Your task to perform on an android device: change keyboard looks Image 0: 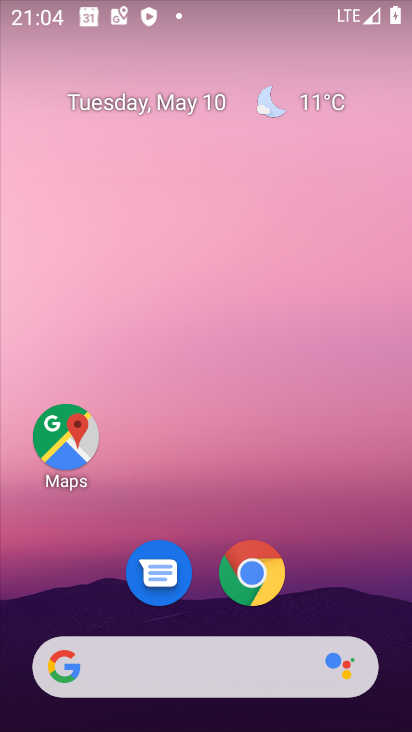
Step 0: drag from (387, 616) to (409, 471)
Your task to perform on an android device: change keyboard looks Image 1: 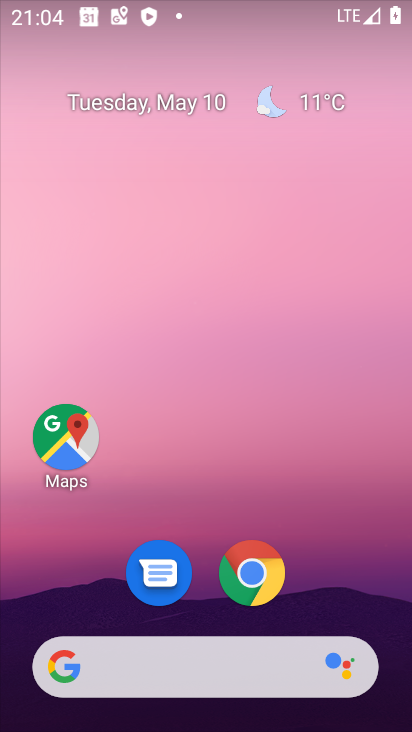
Step 1: drag from (330, 586) to (346, 9)
Your task to perform on an android device: change keyboard looks Image 2: 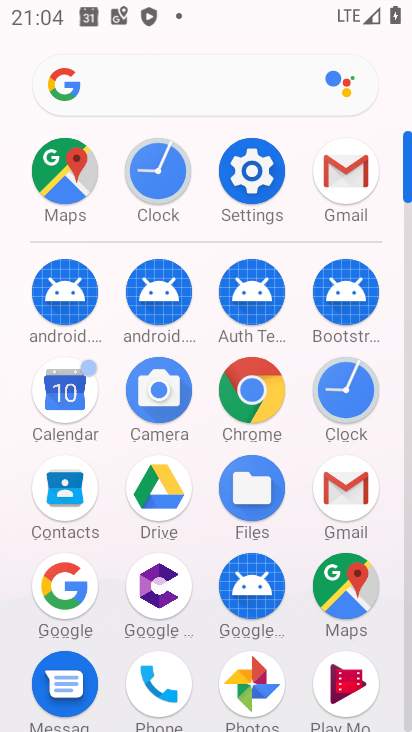
Step 2: click (257, 183)
Your task to perform on an android device: change keyboard looks Image 3: 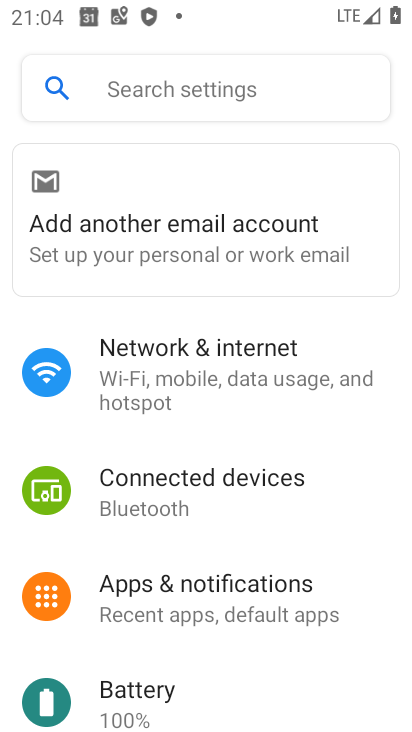
Step 3: drag from (373, 688) to (374, 93)
Your task to perform on an android device: change keyboard looks Image 4: 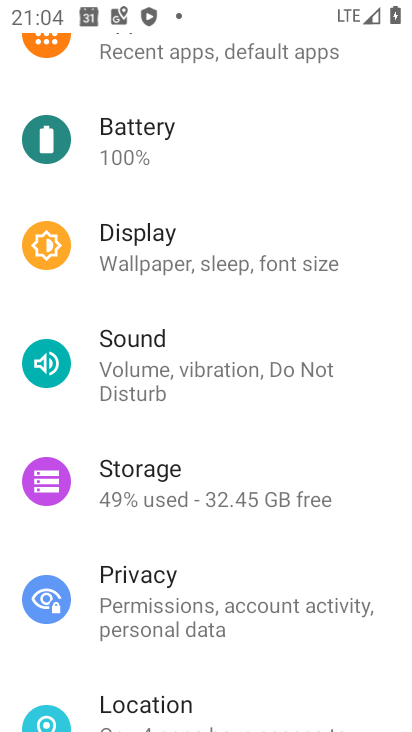
Step 4: drag from (339, 648) to (331, 171)
Your task to perform on an android device: change keyboard looks Image 5: 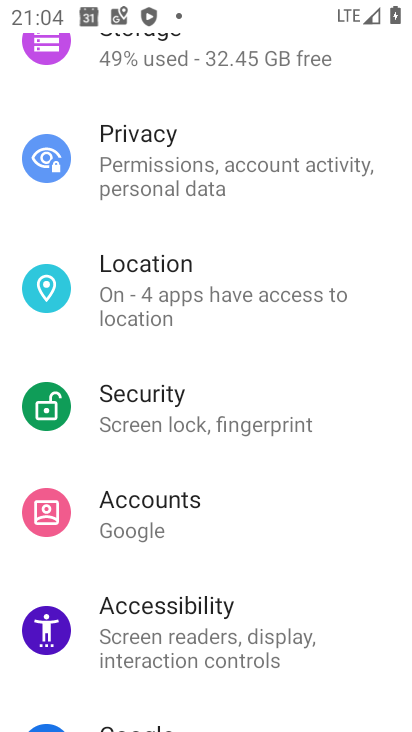
Step 5: drag from (350, 652) to (336, 220)
Your task to perform on an android device: change keyboard looks Image 6: 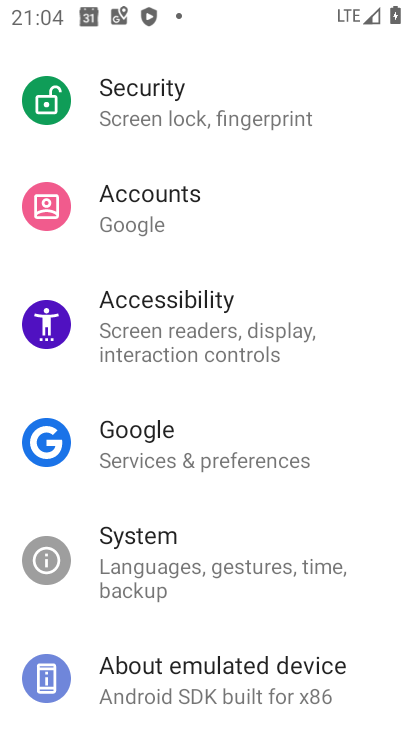
Step 6: click (157, 578)
Your task to perform on an android device: change keyboard looks Image 7: 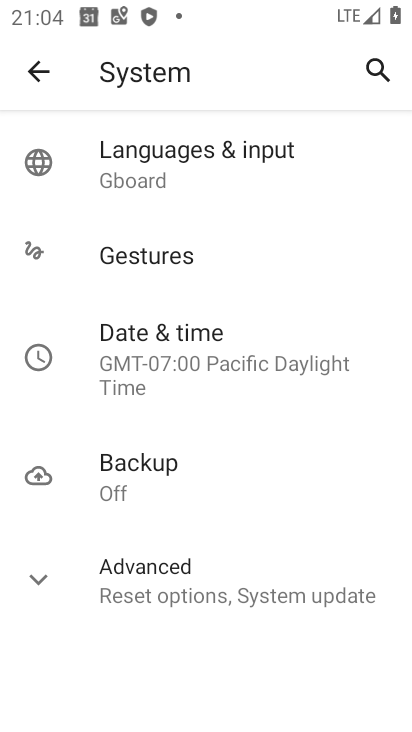
Step 7: click (174, 163)
Your task to perform on an android device: change keyboard looks Image 8: 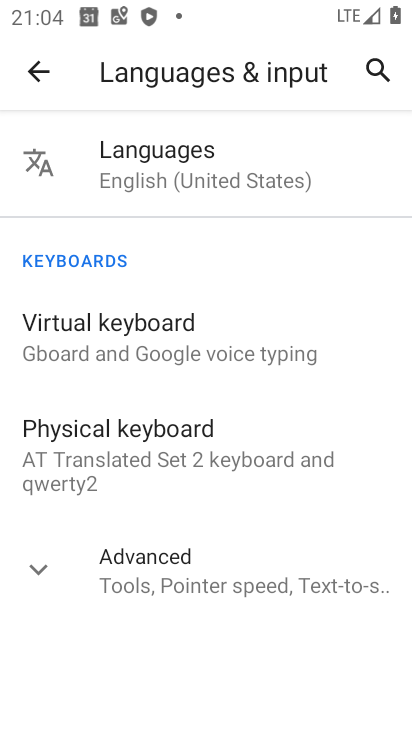
Step 8: click (204, 344)
Your task to perform on an android device: change keyboard looks Image 9: 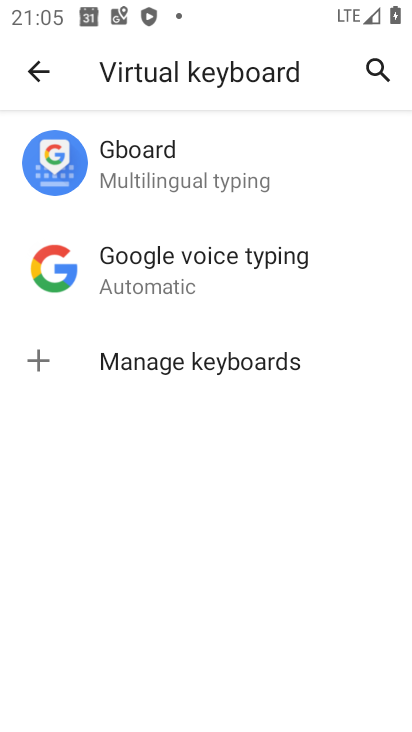
Step 9: click (76, 183)
Your task to perform on an android device: change keyboard looks Image 10: 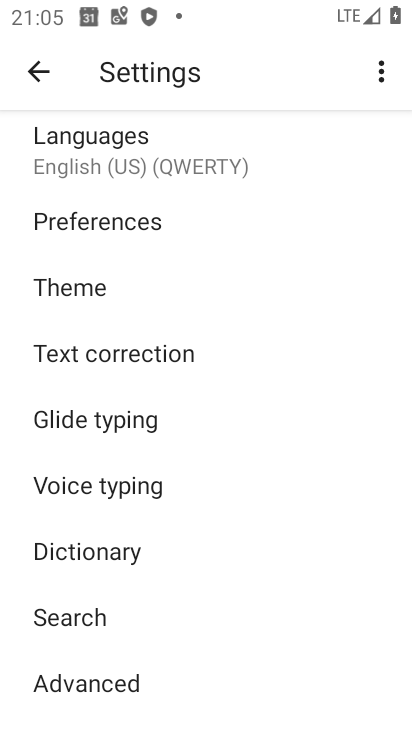
Step 10: click (73, 289)
Your task to perform on an android device: change keyboard looks Image 11: 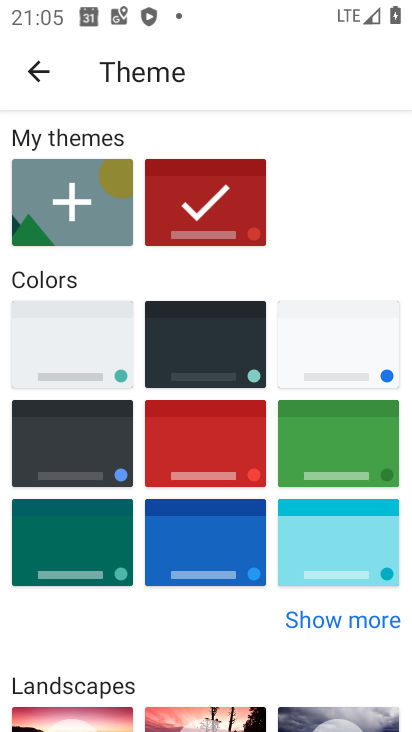
Step 11: click (335, 451)
Your task to perform on an android device: change keyboard looks Image 12: 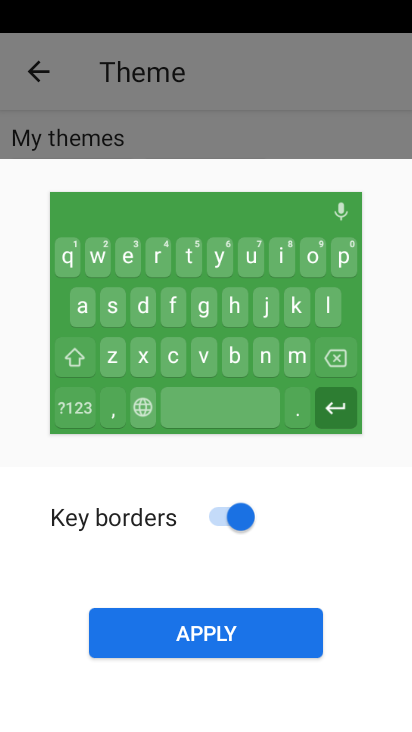
Step 12: click (220, 631)
Your task to perform on an android device: change keyboard looks Image 13: 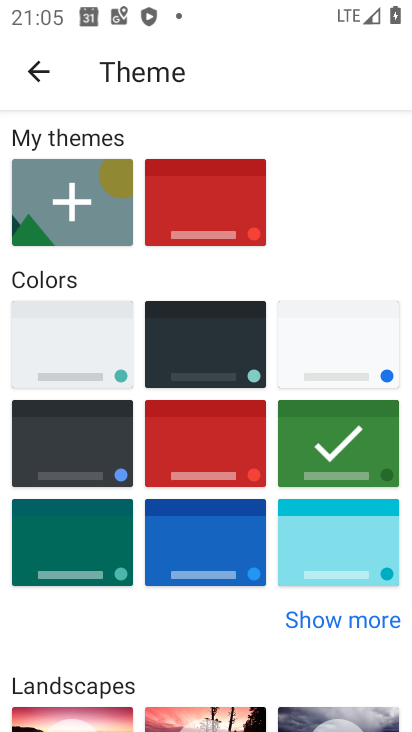
Step 13: task complete